Your task to perform on an android device: search for starred emails in the gmail app Image 0: 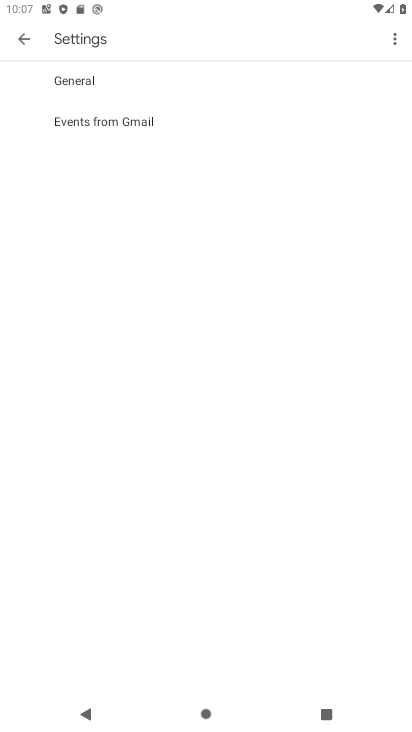
Step 0: press home button
Your task to perform on an android device: search for starred emails in the gmail app Image 1: 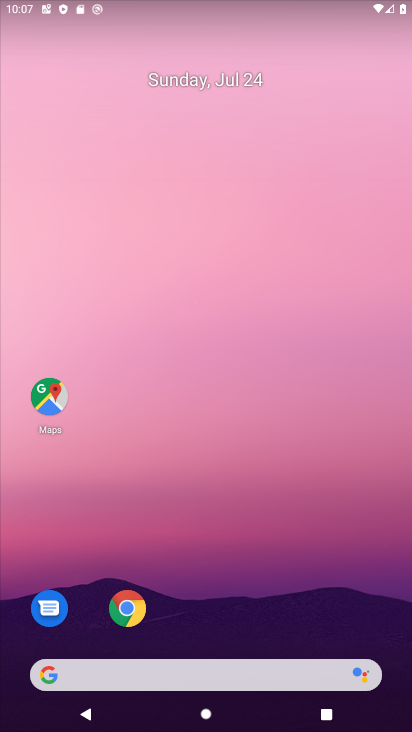
Step 1: drag from (249, 602) to (248, 95)
Your task to perform on an android device: search for starred emails in the gmail app Image 2: 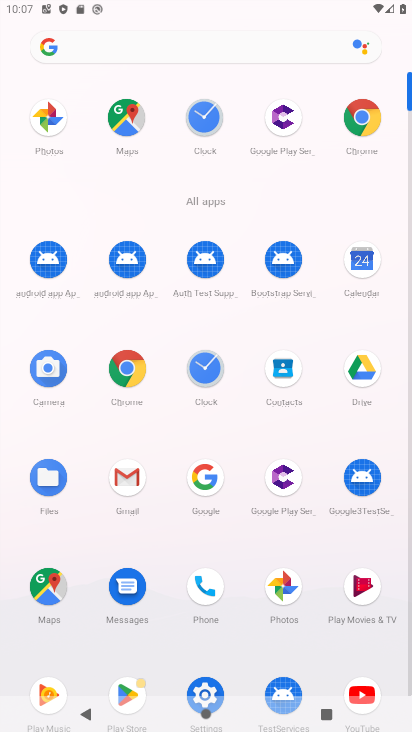
Step 2: click (129, 486)
Your task to perform on an android device: search for starred emails in the gmail app Image 3: 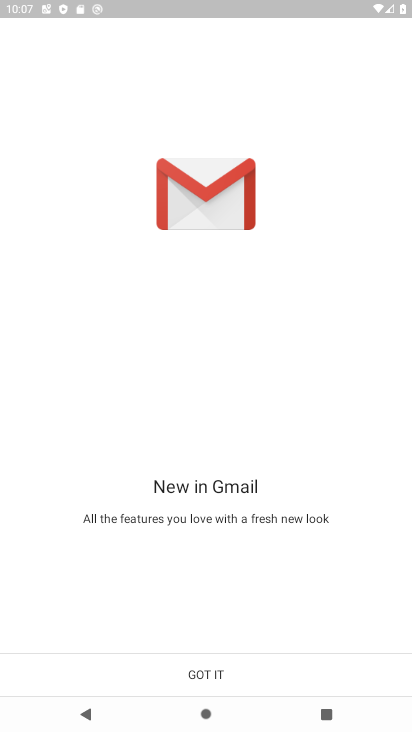
Step 3: click (217, 670)
Your task to perform on an android device: search for starred emails in the gmail app Image 4: 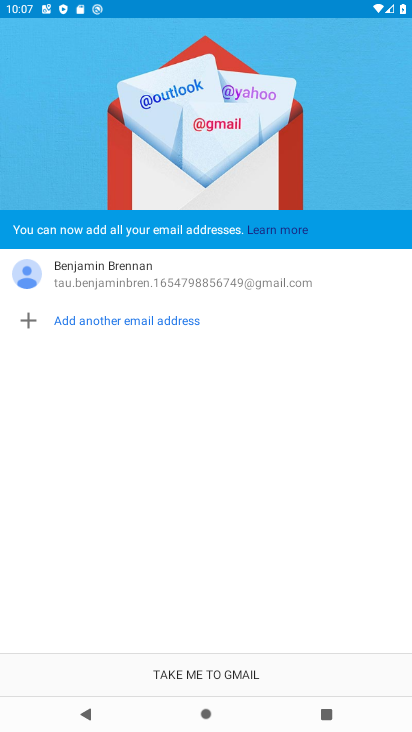
Step 4: click (242, 659)
Your task to perform on an android device: search for starred emails in the gmail app Image 5: 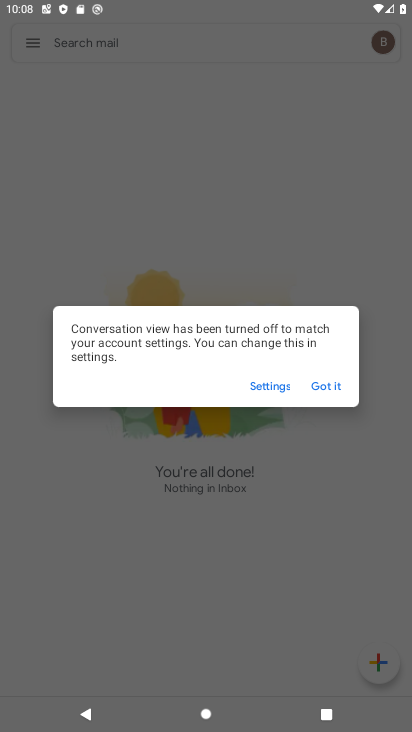
Step 5: click (318, 384)
Your task to perform on an android device: search for starred emails in the gmail app Image 6: 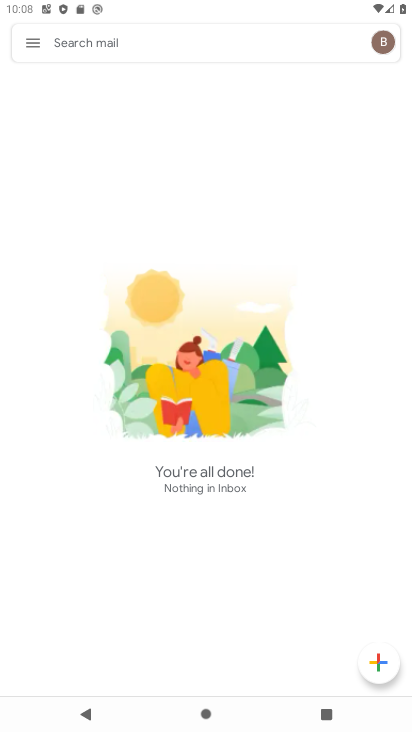
Step 6: click (24, 38)
Your task to perform on an android device: search for starred emails in the gmail app Image 7: 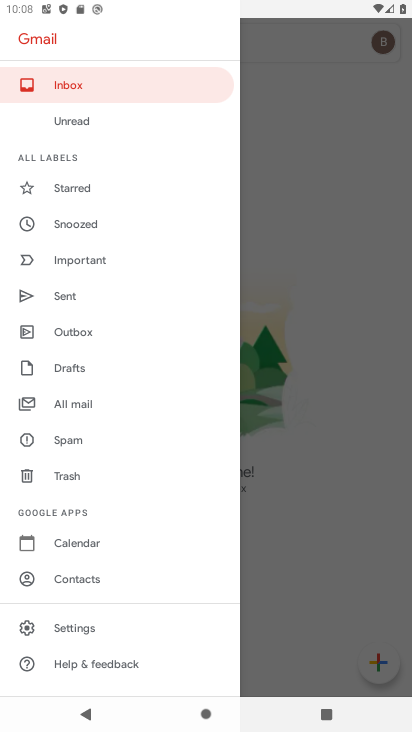
Step 7: click (81, 190)
Your task to perform on an android device: search for starred emails in the gmail app Image 8: 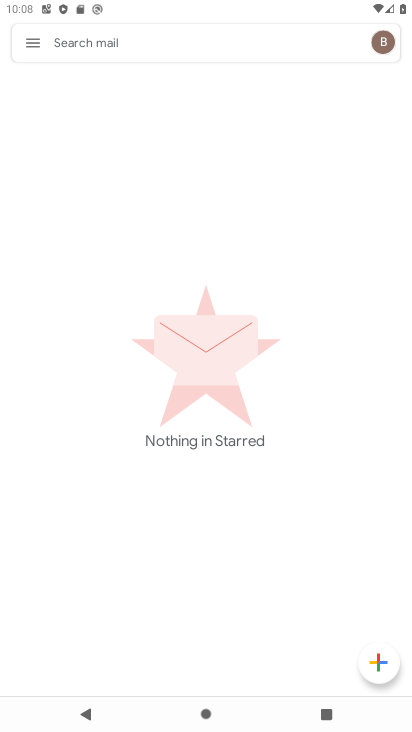
Step 8: task complete